Your task to perform on an android device: turn notification dots on Image 0: 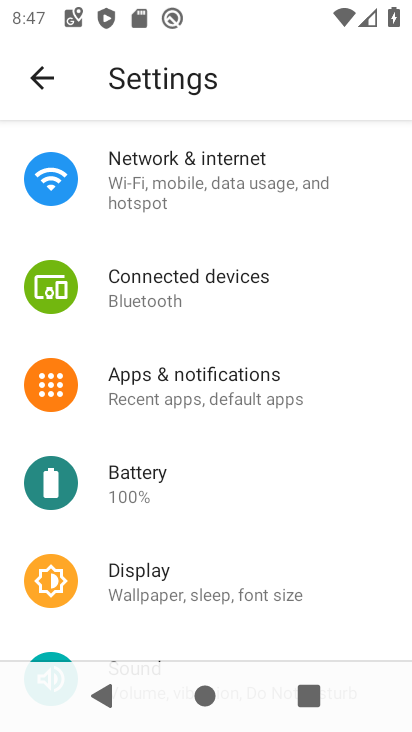
Step 0: click (121, 395)
Your task to perform on an android device: turn notification dots on Image 1: 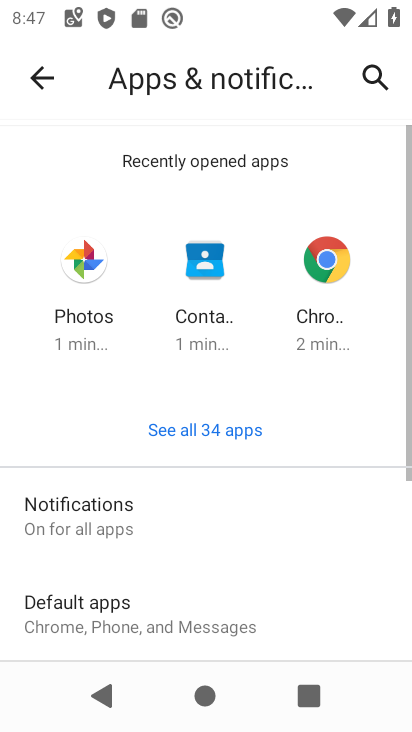
Step 1: click (78, 524)
Your task to perform on an android device: turn notification dots on Image 2: 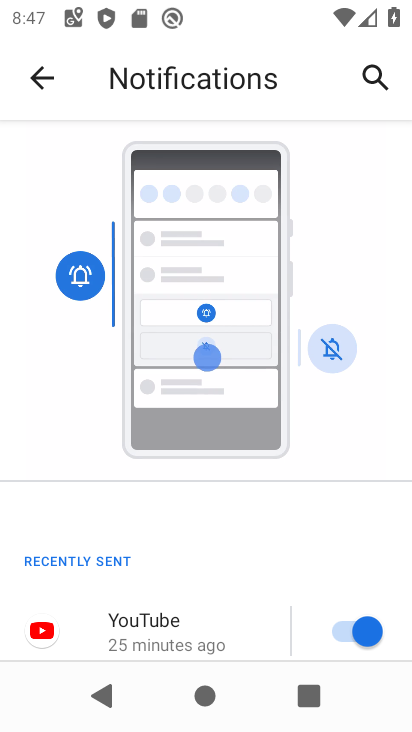
Step 2: drag from (219, 538) to (231, 186)
Your task to perform on an android device: turn notification dots on Image 3: 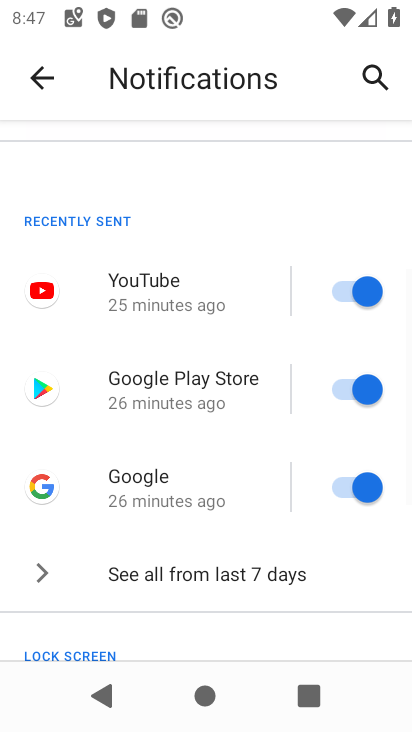
Step 3: drag from (221, 471) to (209, 136)
Your task to perform on an android device: turn notification dots on Image 4: 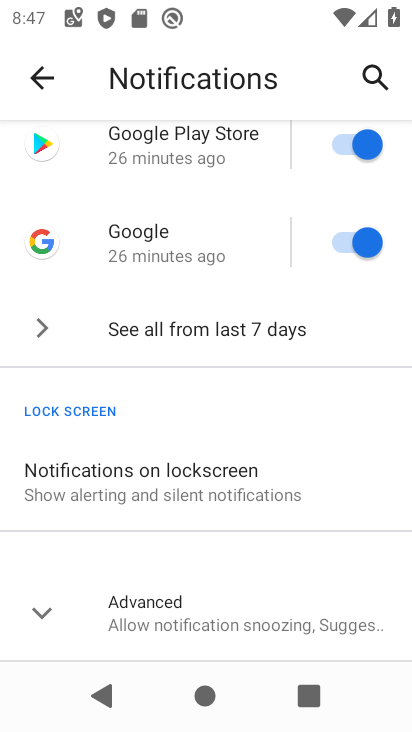
Step 4: click (33, 617)
Your task to perform on an android device: turn notification dots on Image 5: 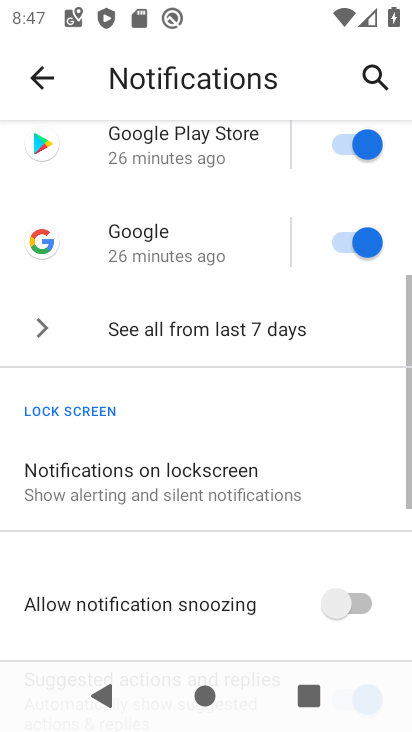
Step 5: task complete